Your task to perform on an android device: Add "corsair k70" to the cart on target.com, then select checkout. Image 0: 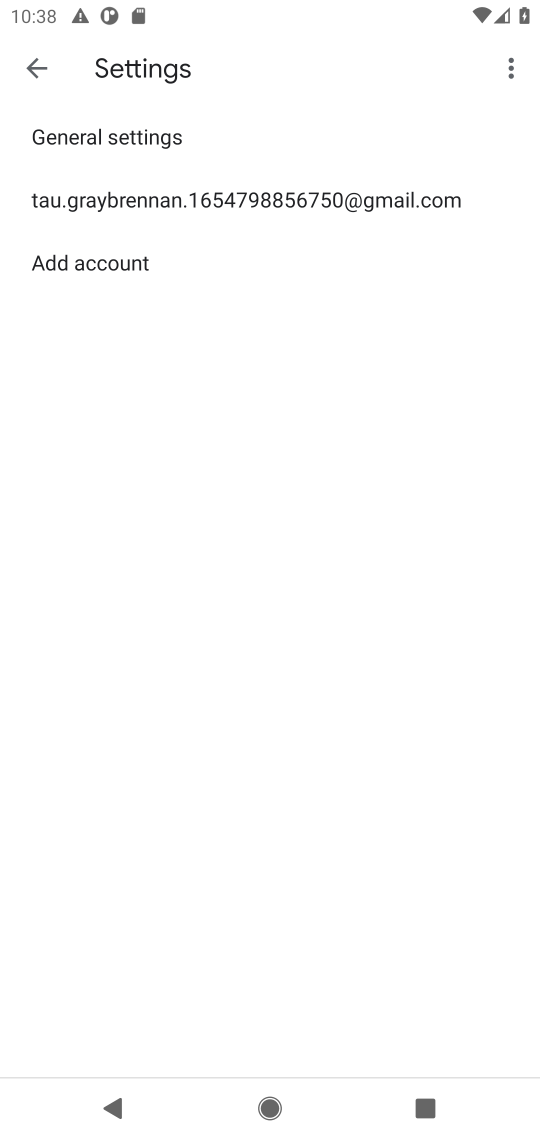
Step 0: press home button
Your task to perform on an android device: Add "corsair k70" to the cart on target.com, then select checkout. Image 1: 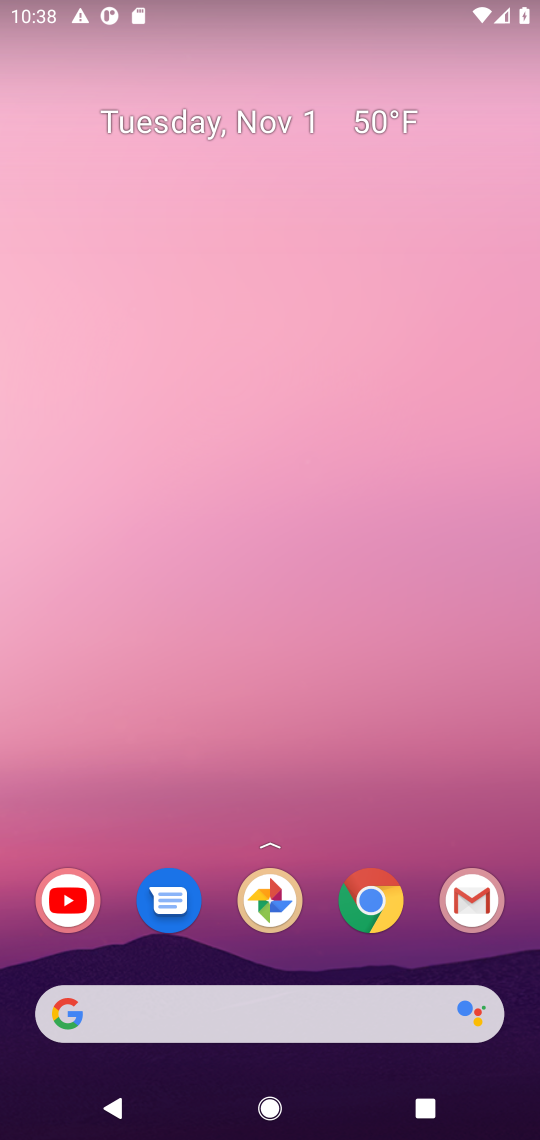
Step 1: click (362, 899)
Your task to perform on an android device: Add "corsair k70" to the cart on target.com, then select checkout. Image 2: 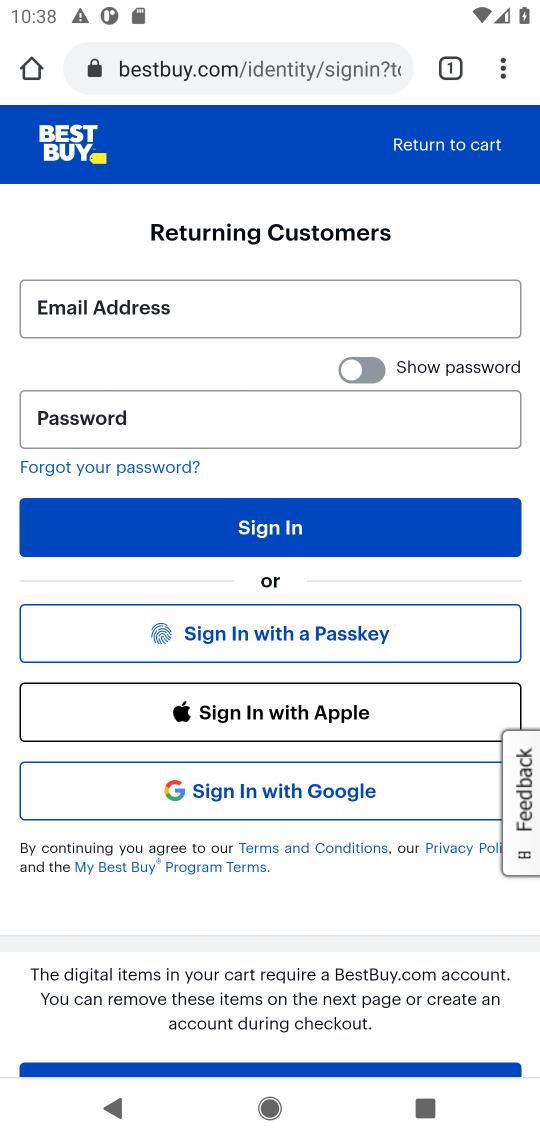
Step 2: click (201, 67)
Your task to perform on an android device: Add "corsair k70" to the cart on target.com, then select checkout. Image 3: 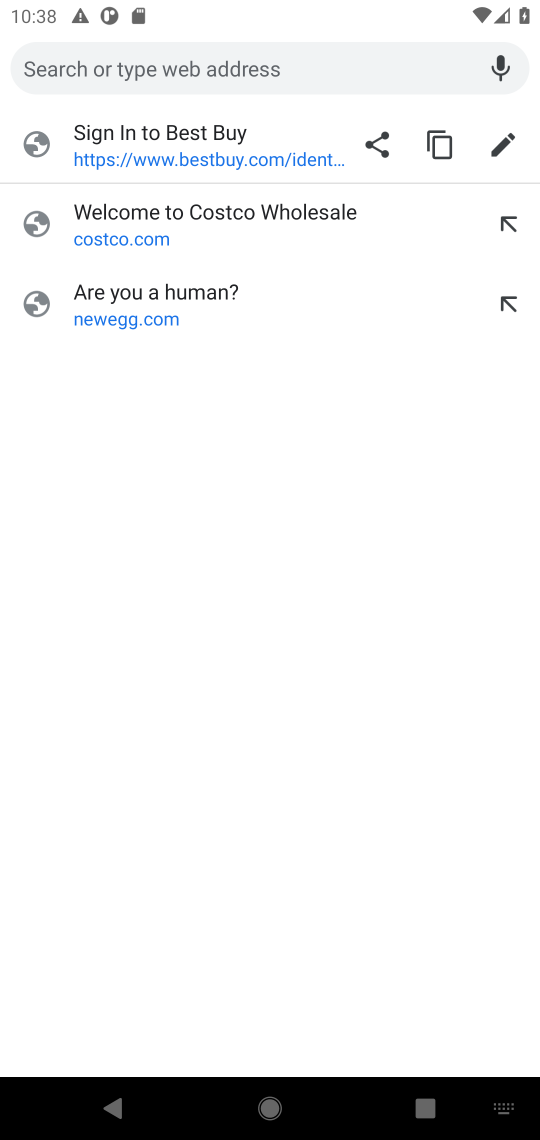
Step 3: type "target"
Your task to perform on an android device: Add "corsair k70" to the cart on target.com, then select checkout. Image 4: 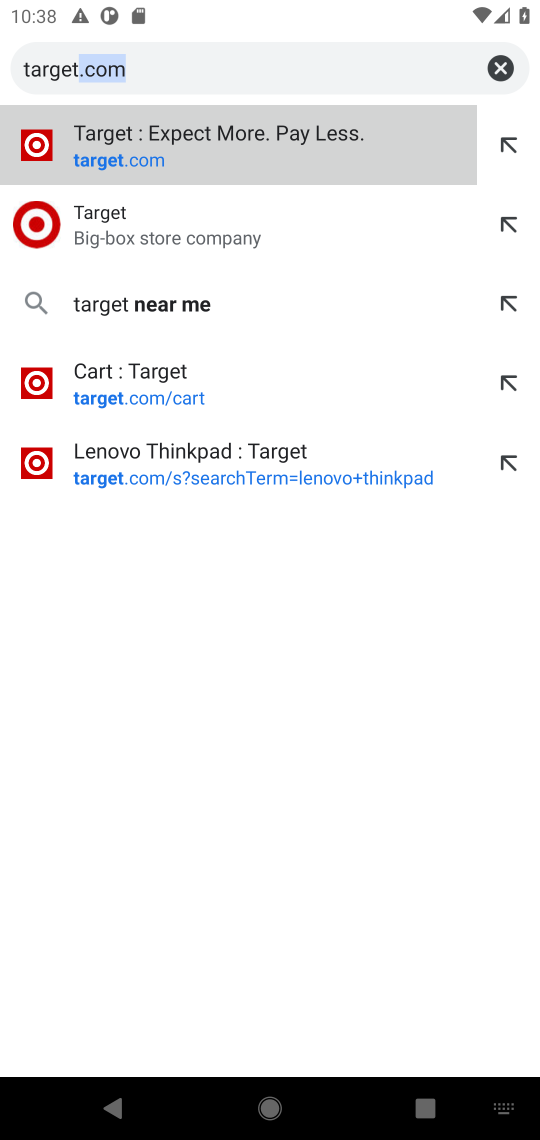
Step 4: click (140, 228)
Your task to perform on an android device: Add "corsair k70" to the cart on target.com, then select checkout. Image 5: 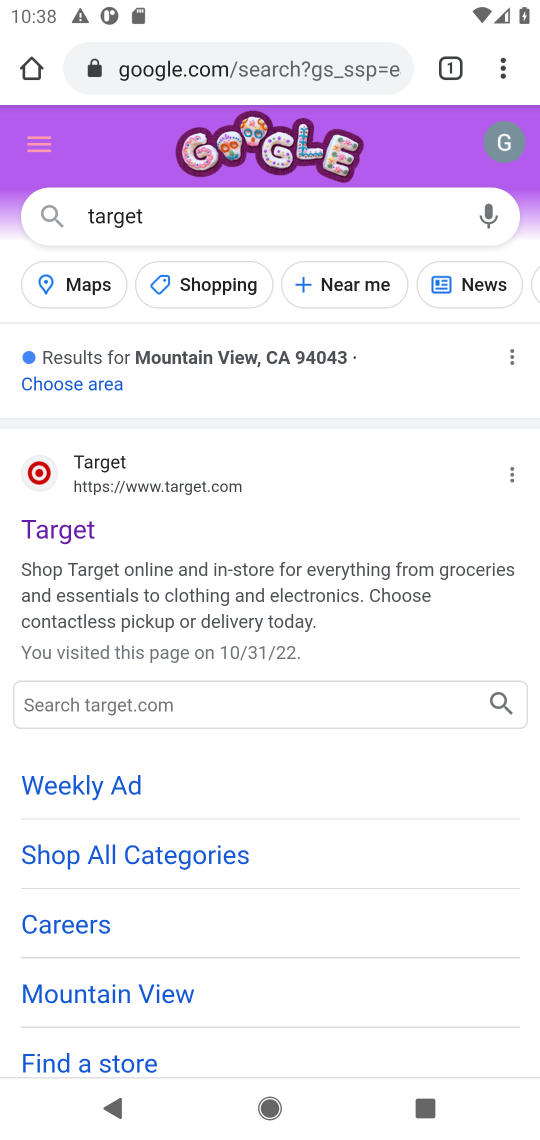
Step 5: click (56, 542)
Your task to perform on an android device: Add "corsair k70" to the cart on target.com, then select checkout. Image 6: 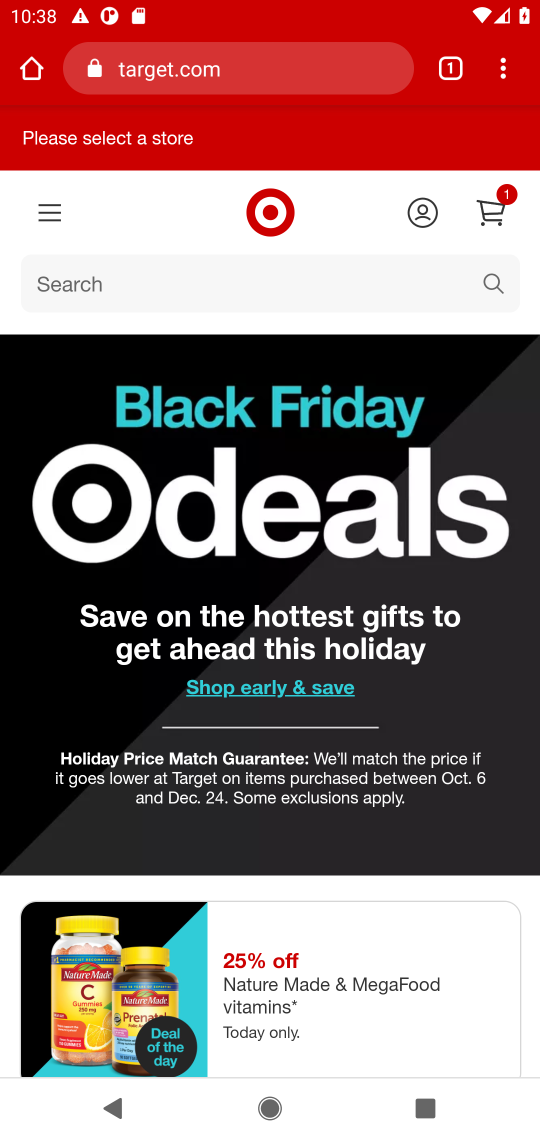
Step 6: click (400, 281)
Your task to perform on an android device: Add "corsair k70" to the cart on target.com, then select checkout. Image 7: 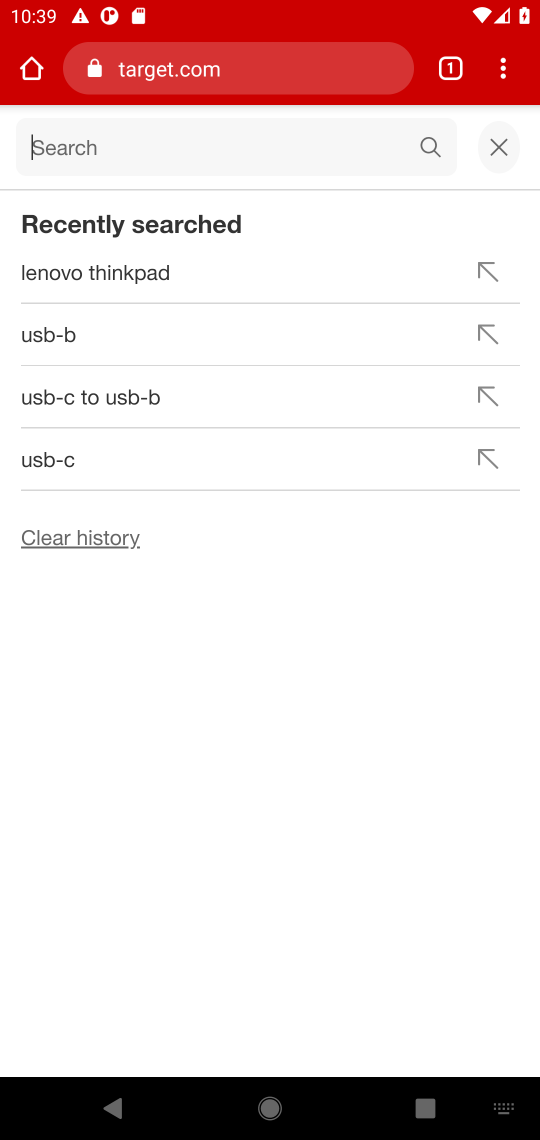
Step 7: type "corsair k70"
Your task to perform on an android device: Add "corsair k70" to the cart on target.com, then select checkout. Image 8: 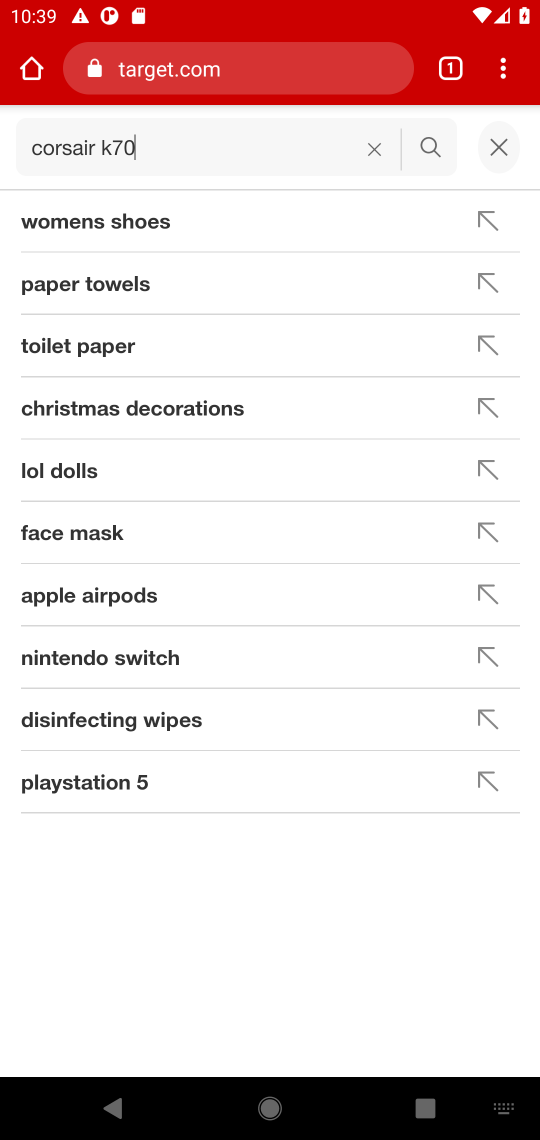
Step 8: type ""
Your task to perform on an android device: Add "corsair k70" to the cart on target.com, then select checkout. Image 9: 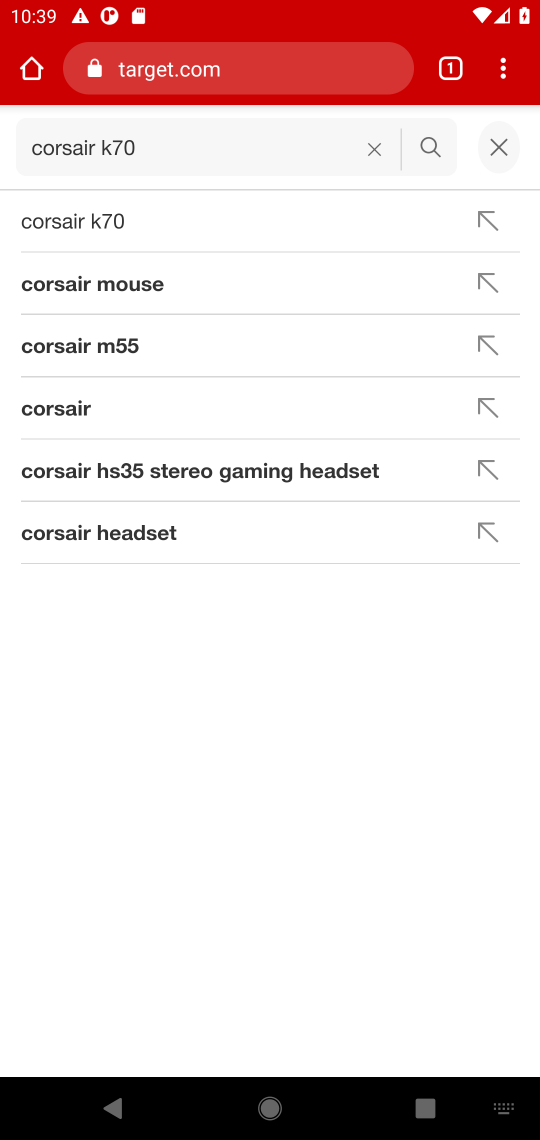
Step 9: click (426, 145)
Your task to perform on an android device: Add "corsair k70" to the cart on target.com, then select checkout. Image 10: 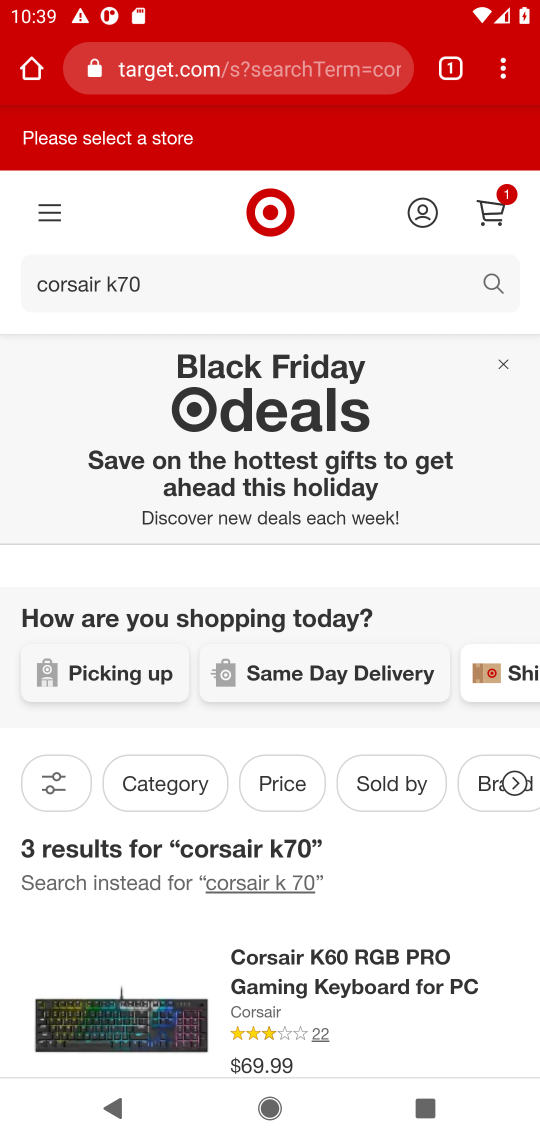
Step 10: task complete